Your task to perform on an android device: Open the phone app and click the voicemail tab. Image 0: 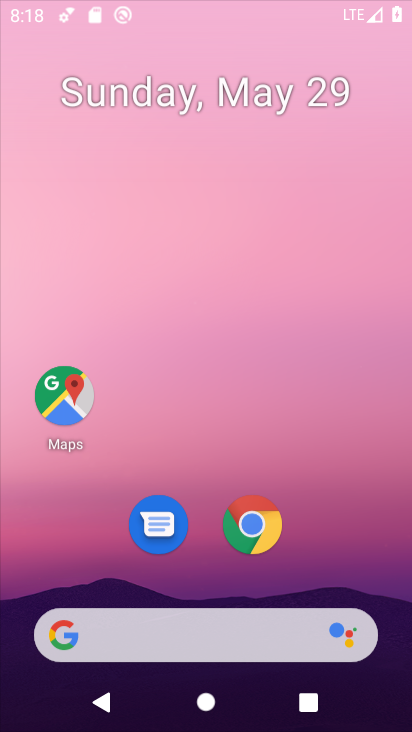
Step 0: press home button
Your task to perform on an android device: Open the phone app and click the voicemail tab. Image 1: 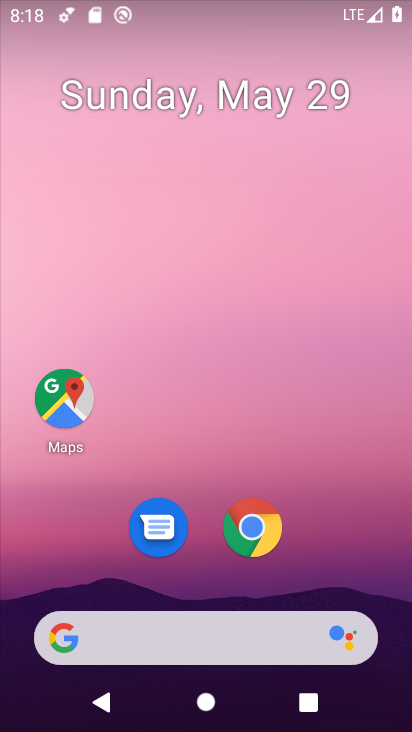
Step 1: drag from (217, 586) to (222, 99)
Your task to perform on an android device: Open the phone app and click the voicemail tab. Image 2: 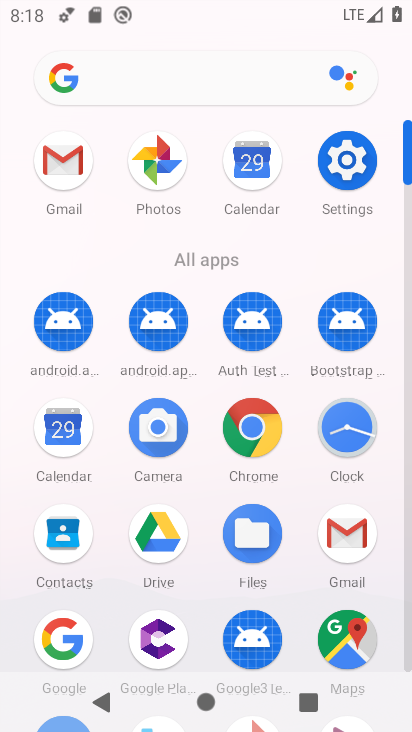
Step 2: drag from (209, 591) to (200, 134)
Your task to perform on an android device: Open the phone app and click the voicemail tab. Image 3: 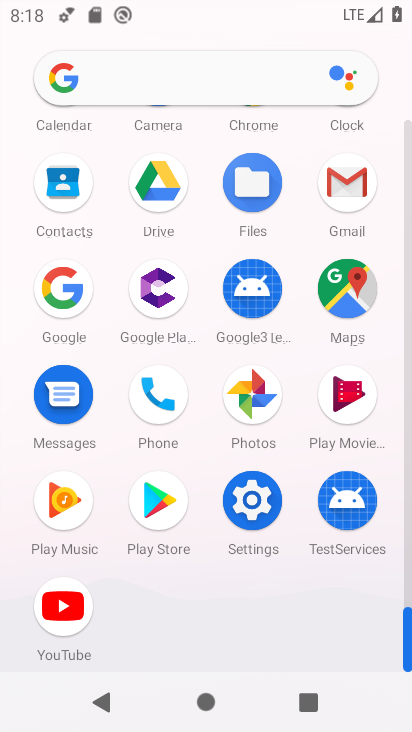
Step 3: click (157, 377)
Your task to perform on an android device: Open the phone app and click the voicemail tab. Image 4: 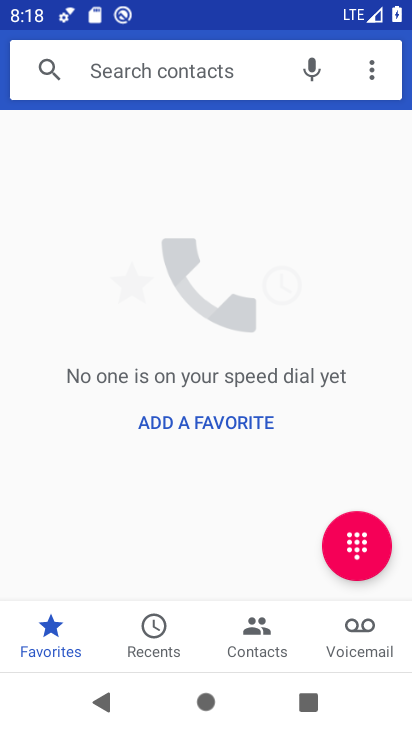
Step 4: click (355, 619)
Your task to perform on an android device: Open the phone app and click the voicemail tab. Image 5: 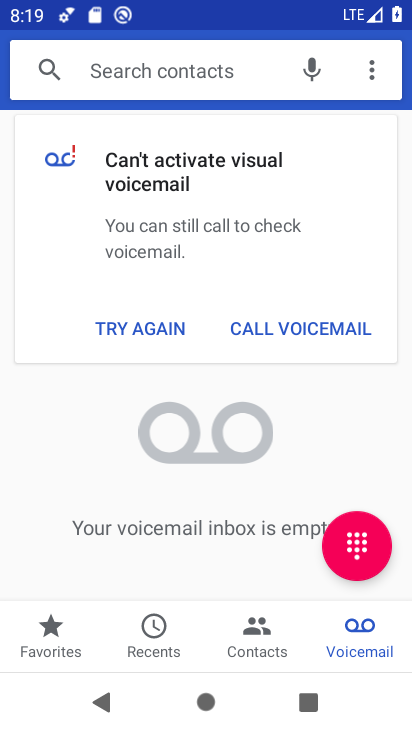
Step 5: task complete